Your task to perform on an android device: turn pop-ups off in chrome Image 0: 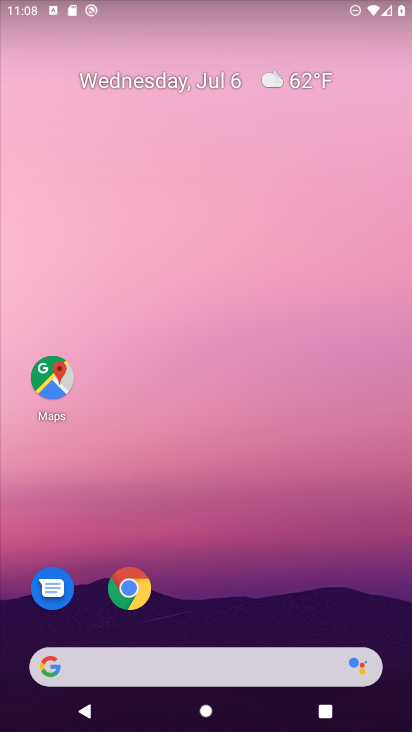
Step 0: click (128, 589)
Your task to perform on an android device: turn pop-ups off in chrome Image 1: 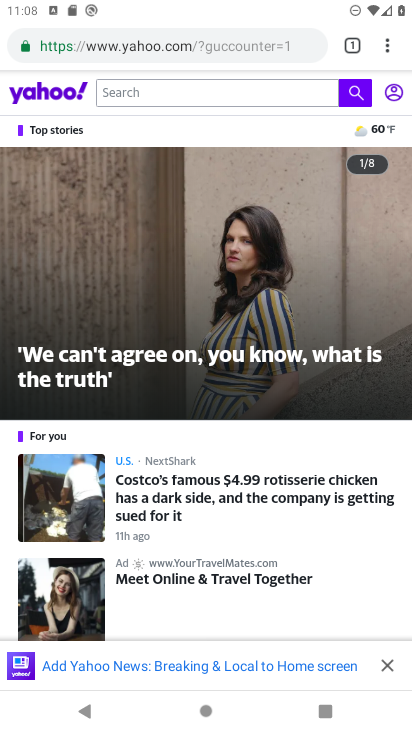
Step 1: click (386, 51)
Your task to perform on an android device: turn pop-ups off in chrome Image 2: 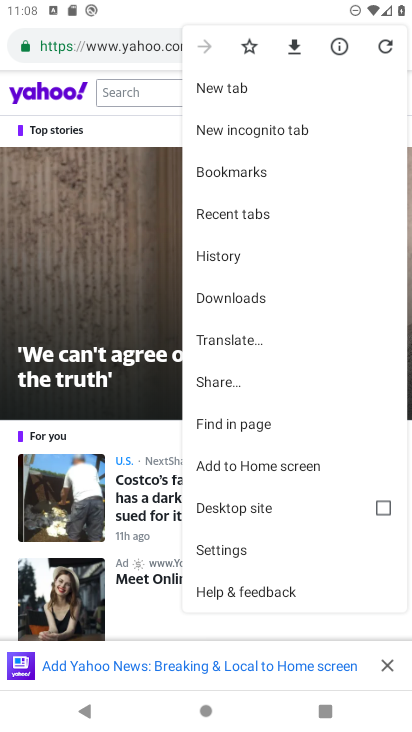
Step 2: click (234, 546)
Your task to perform on an android device: turn pop-ups off in chrome Image 3: 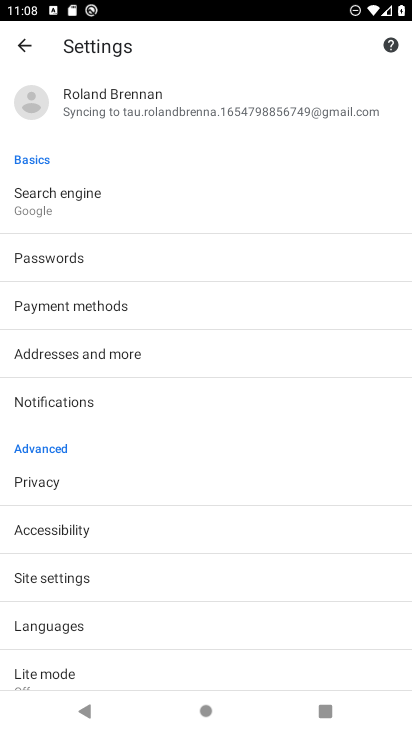
Step 3: click (45, 581)
Your task to perform on an android device: turn pop-ups off in chrome Image 4: 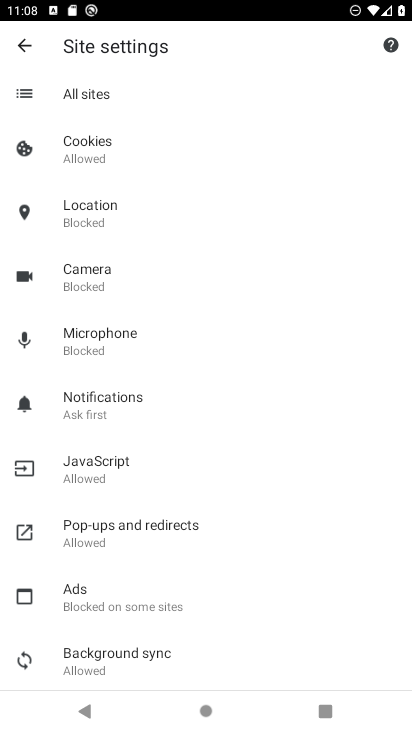
Step 4: click (81, 528)
Your task to perform on an android device: turn pop-ups off in chrome Image 5: 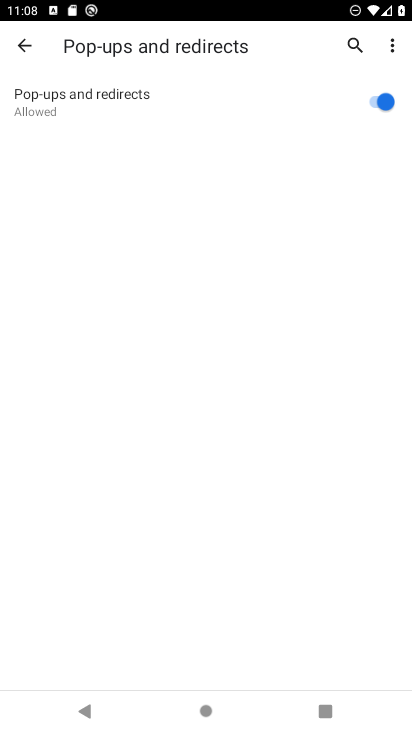
Step 5: click (375, 99)
Your task to perform on an android device: turn pop-ups off in chrome Image 6: 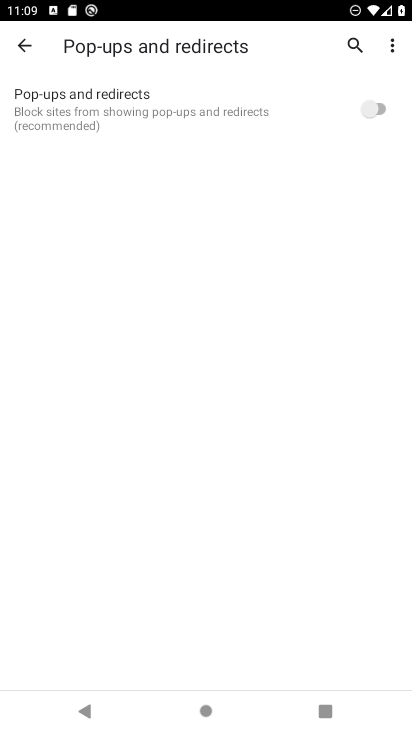
Step 6: task complete